Your task to perform on an android device: toggle priority inbox in the gmail app Image 0: 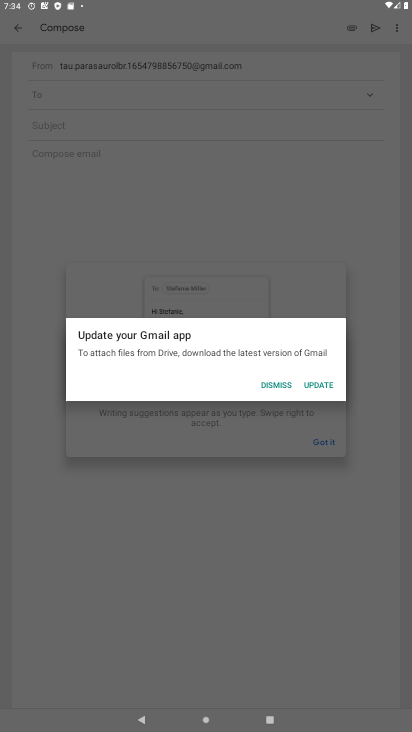
Step 0: press home button
Your task to perform on an android device: toggle priority inbox in the gmail app Image 1: 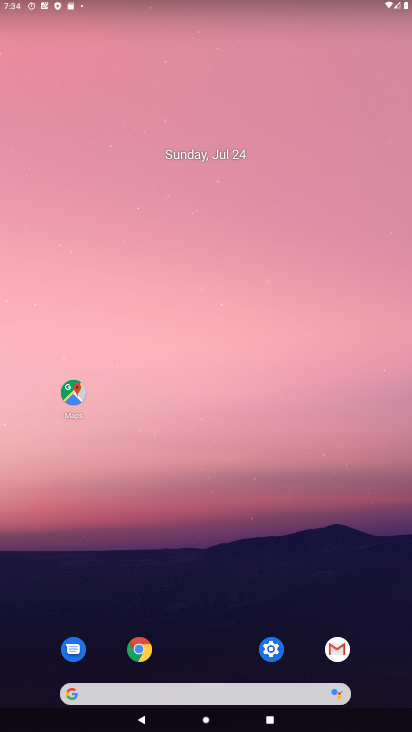
Step 1: click (336, 662)
Your task to perform on an android device: toggle priority inbox in the gmail app Image 2: 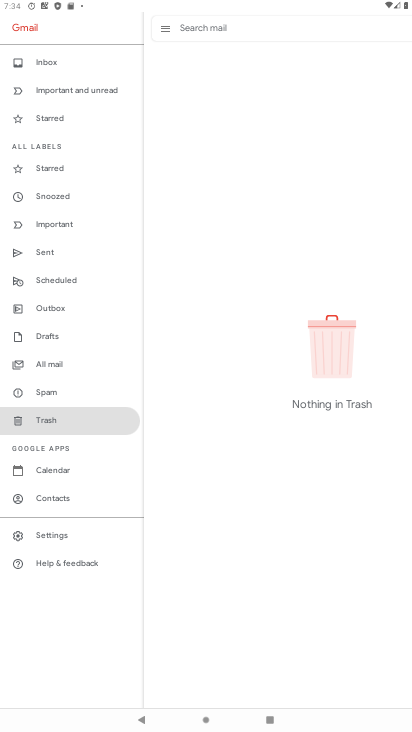
Step 2: click (59, 537)
Your task to perform on an android device: toggle priority inbox in the gmail app Image 3: 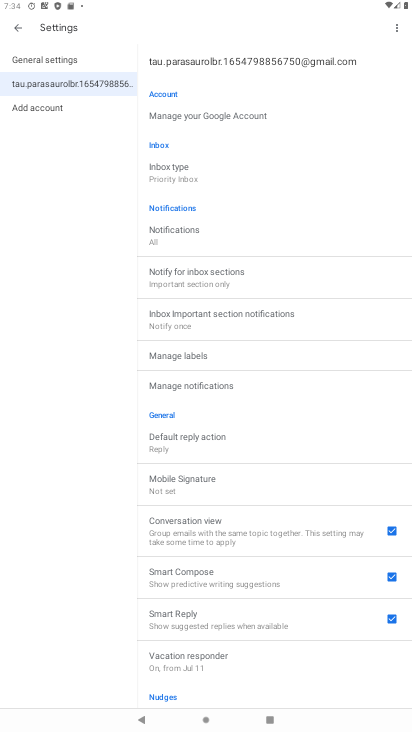
Step 3: click (178, 175)
Your task to perform on an android device: toggle priority inbox in the gmail app Image 4: 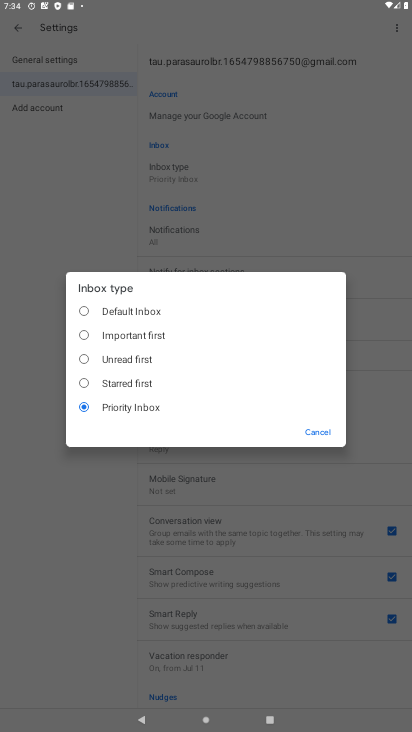
Step 4: task complete